Your task to perform on an android device: Open Google Chrome and click the shortcut for Amazon.com Image 0: 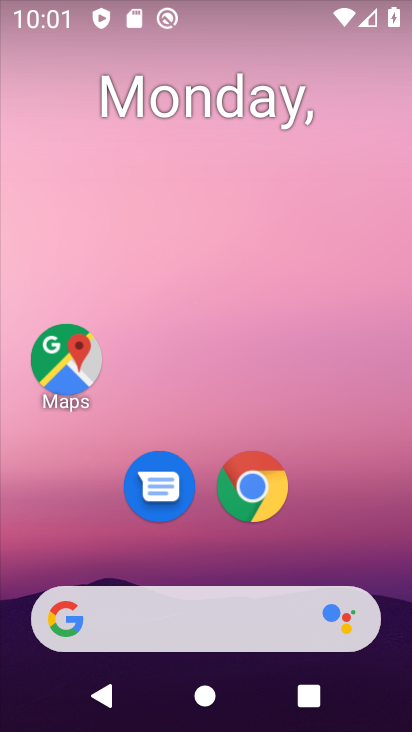
Step 0: click (254, 487)
Your task to perform on an android device: Open Google Chrome and click the shortcut for Amazon.com Image 1: 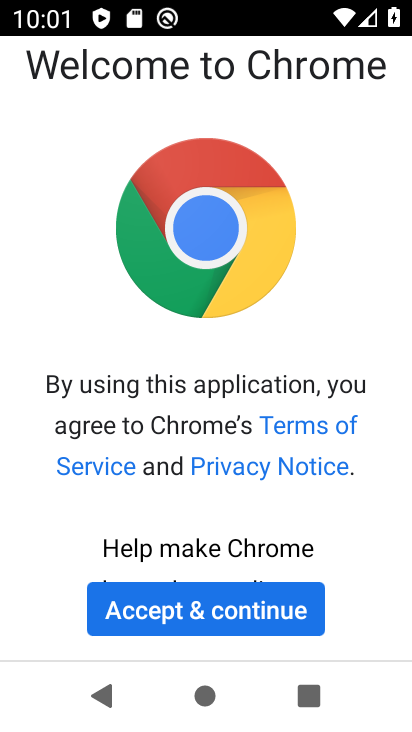
Step 1: click (241, 609)
Your task to perform on an android device: Open Google Chrome and click the shortcut for Amazon.com Image 2: 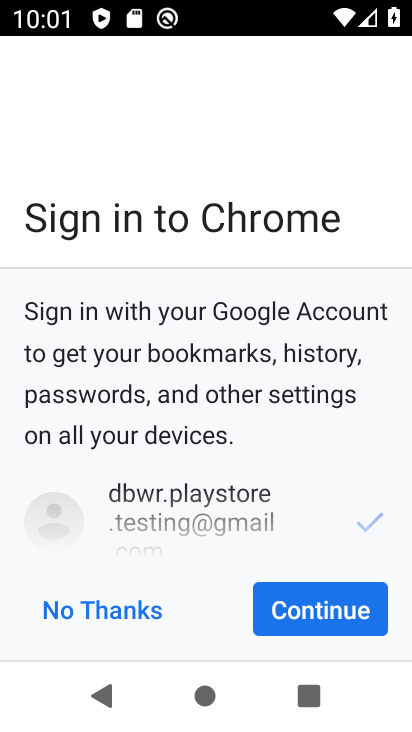
Step 2: click (305, 602)
Your task to perform on an android device: Open Google Chrome and click the shortcut for Amazon.com Image 3: 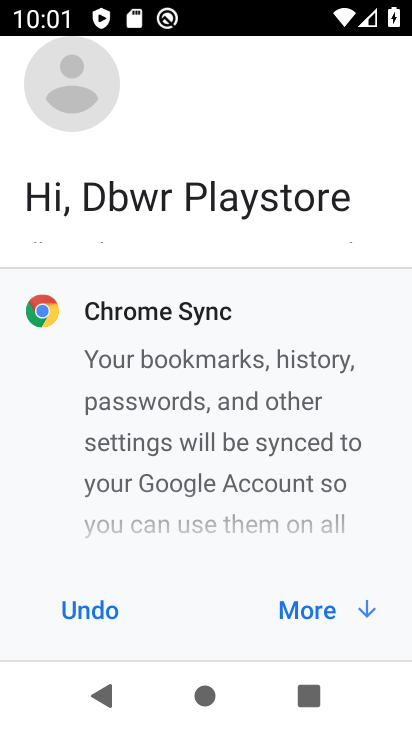
Step 3: click (309, 609)
Your task to perform on an android device: Open Google Chrome and click the shortcut for Amazon.com Image 4: 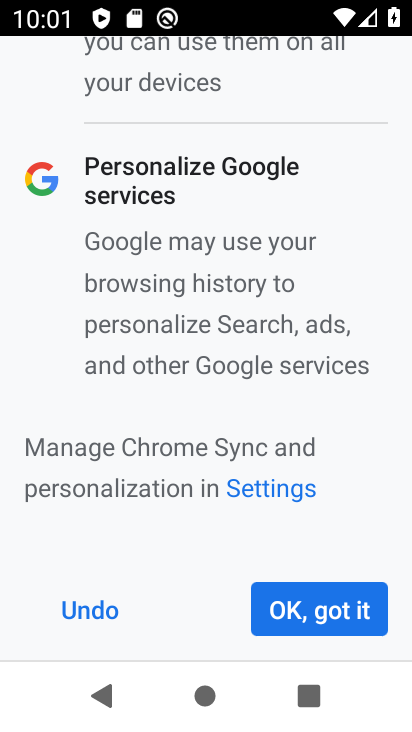
Step 4: click (309, 609)
Your task to perform on an android device: Open Google Chrome and click the shortcut for Amazon.com Image 5: 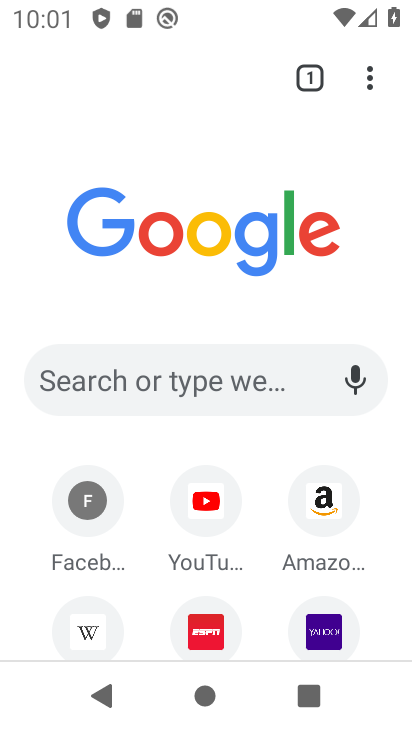
Step 5: click (321, 501)
Your task to perform on an android device: Open Google Chrome and click the shortcut for Amazon.com Image 6: 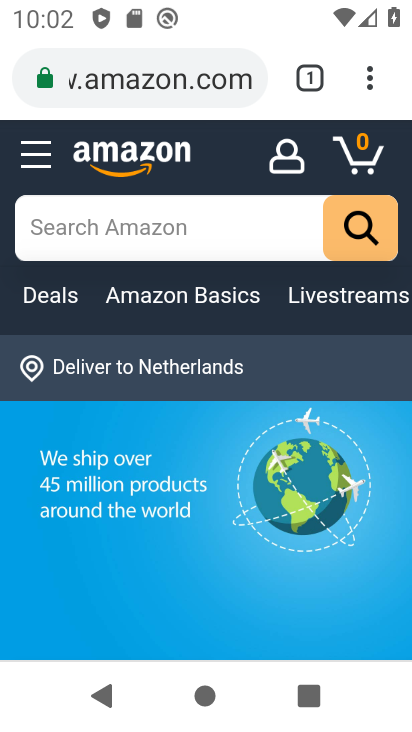
Step 6: click (371, 81)
Your task to perform on an android device: Open Google Chrome and click the shortcut for Amazon.com Image 7: 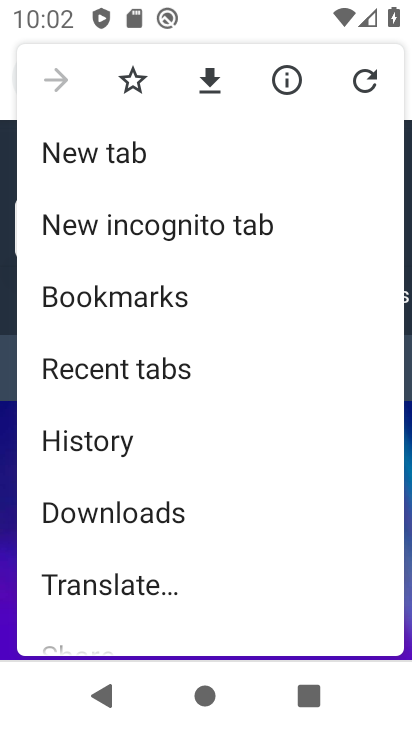
Step 7: drag from (204, 494) to (239, 413)
Your task to perform on an android device: Open Google Chrome and click the shortcut for Amazon.com Image 8: 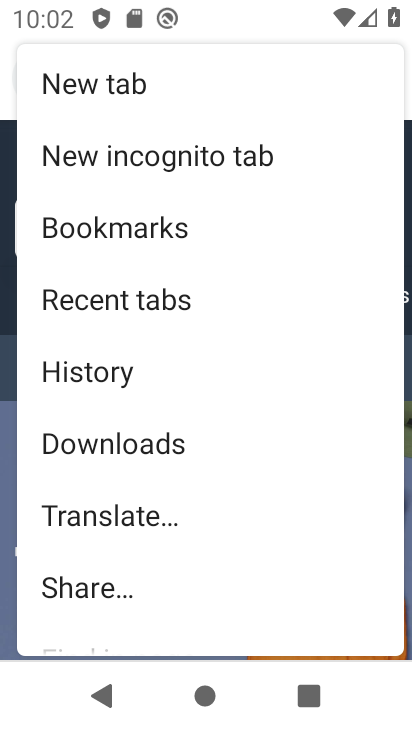
Step 8: drag from (185, 547) to (220, 456)
Your task to perform on an android device: Open Google Chrome and click the shortcut for Amazon.com Image 9: 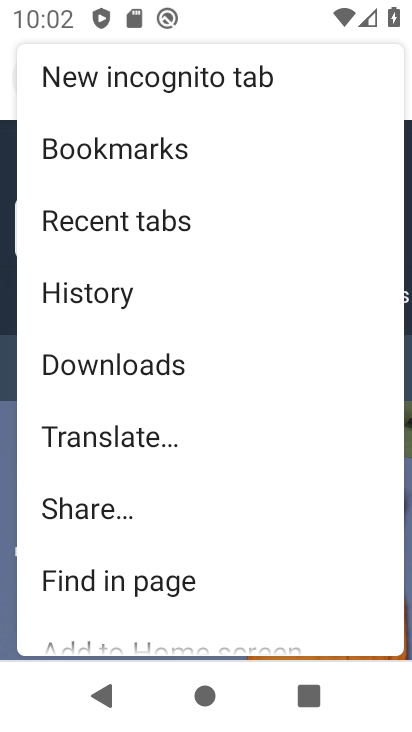
Step 9: drag from (158, 534) to (222, 437)
Your task to perform on an android device: Open Google Chrome and click the shortcut for Amazon.com Image 10: 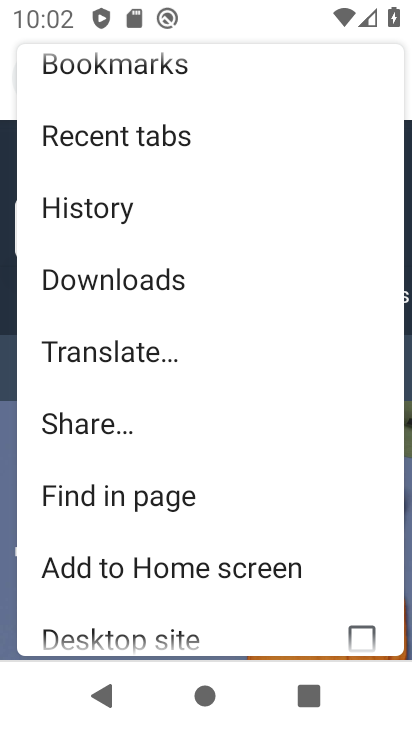
Step 10: drag from (208, 526) to (251, 455)
Your task to perform on an android device: Open Google Chrome and click the shortcut for Amazon.com Image 11: 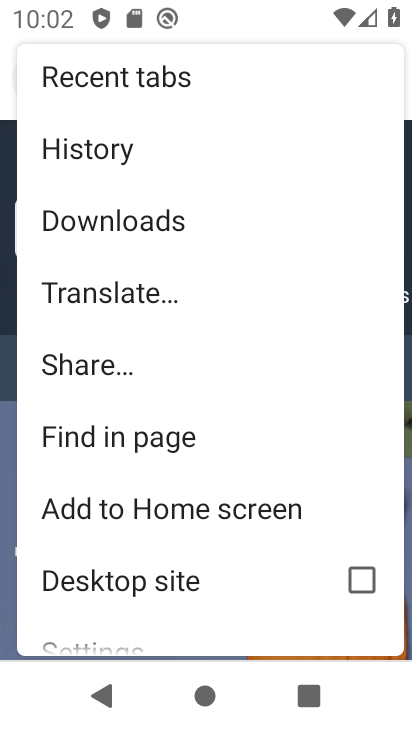
Step 11: click (273, 500)
Your task to perform on an android device: Open Google Chrome and click the shortcut for Amazon.com Image 12: 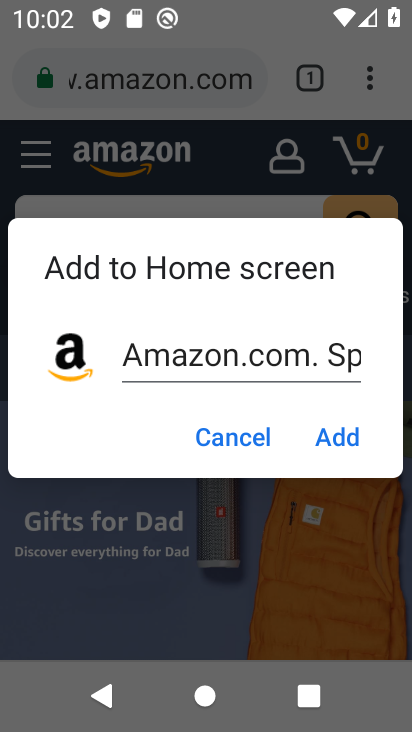
Step 12: click (339, 432)
Your task to perform on an android device: Open Google Chrome and click the shortcut for Amazon.com Image 13: 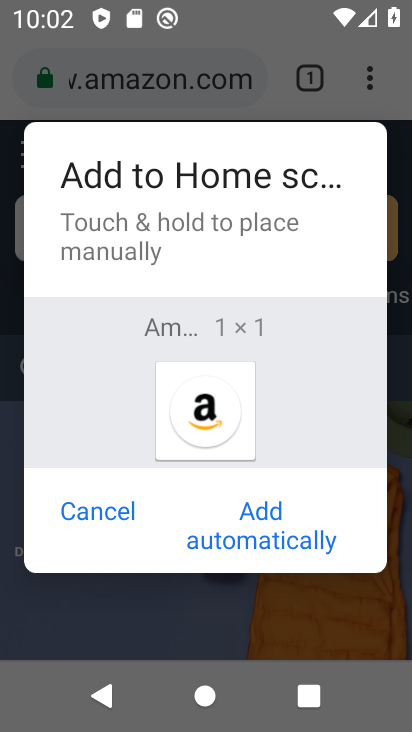
Step 13: click (261, 521)
Your task to perform on an android device: Open Google Chrome and click the shortcut for Amazon.com Image 14: 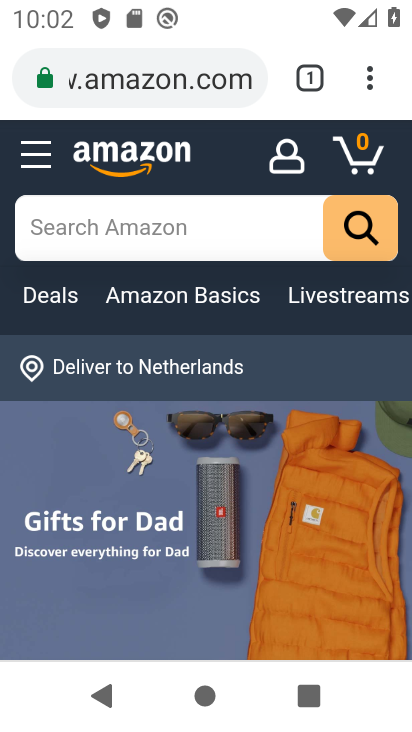
Step 14: task complete